Your task to perform on an android device: Open settings Image 0: 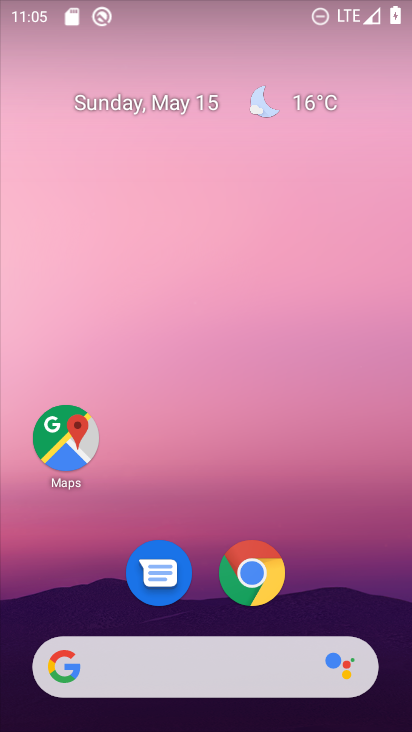
Step 0: press home button
Your task to perform on an android device: Open settings Image 1: 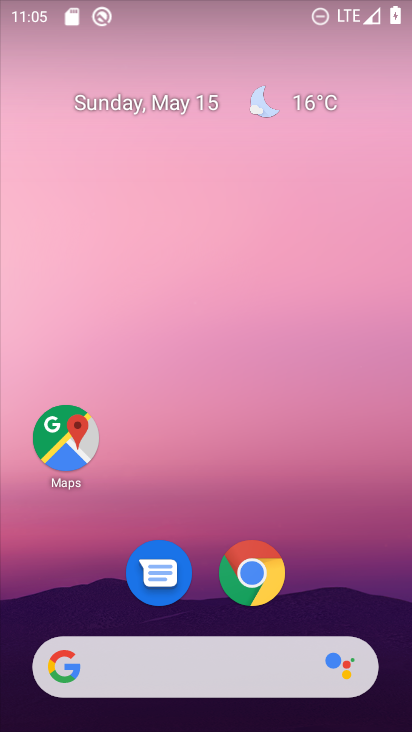
Step 1: drag from (340, 549) to (358, 0)
Your task to perform on an android device: Open settings Image 2: 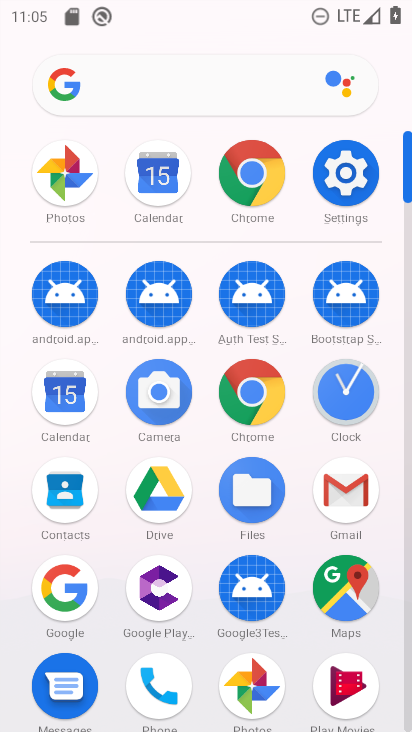
Step 2: click (343, 188)
Your task to perform on an android device: Open settings Image 3: 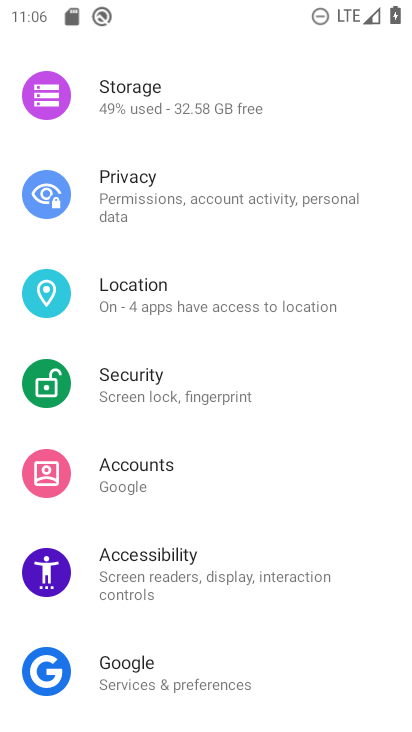
Step 3: task complete